Your task to perform on an android device: delete a single message in the gmail app Image 0: 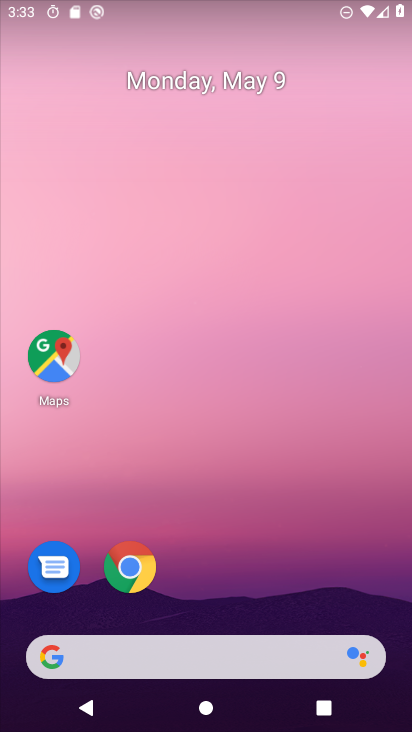
Step 0: drag from (290, 526) to (276, 151)
Your task to perform on an android device: delete a single message in the gmail app Image 1: 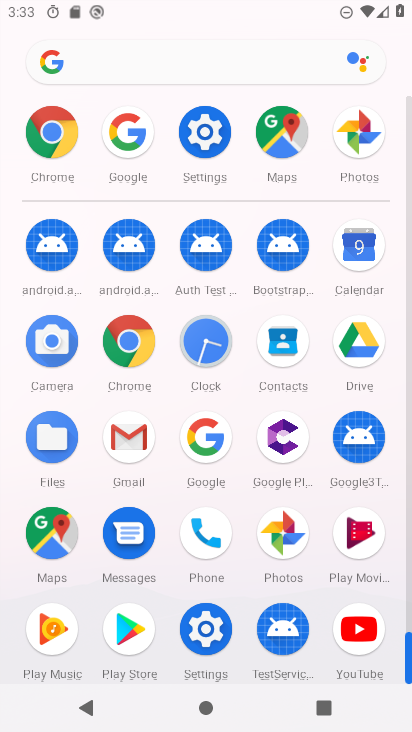
Step 1: click (130, 440)
Your task to perform on an android device: delete a single message in the gmail app Image 2: 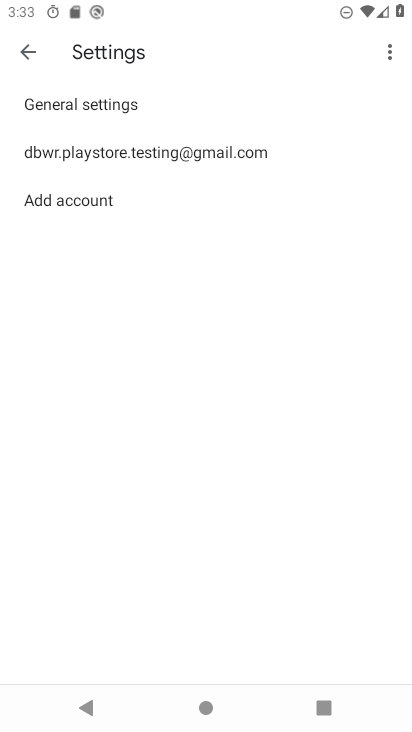
Step 2: click (34, 57)
Your task to perform on an android device: delete a single message in the gmail app Image 3: 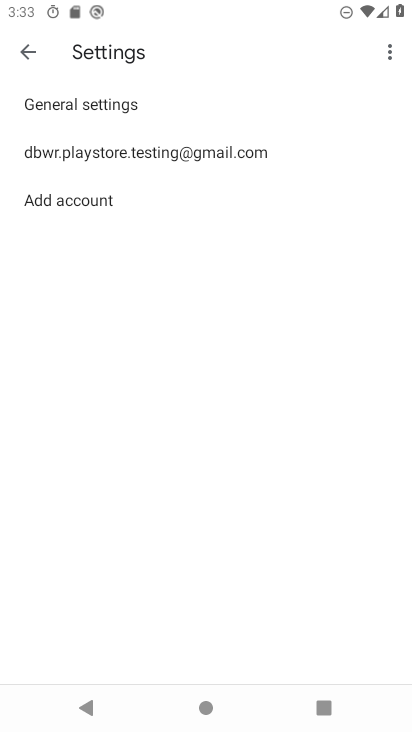
Step 3: click (24, 54)
Your task to perform on an android device: delete a single message in the gmail app Image 4: 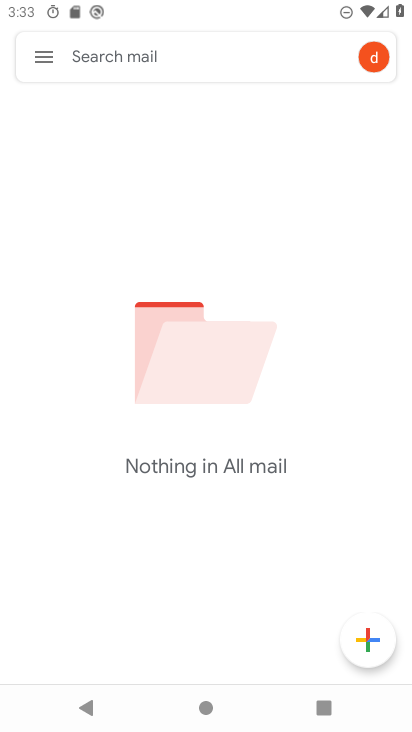
Step 4: task complete